Your task to perform on an android device: Open Google Maps and go to "Timeline" Image 0: 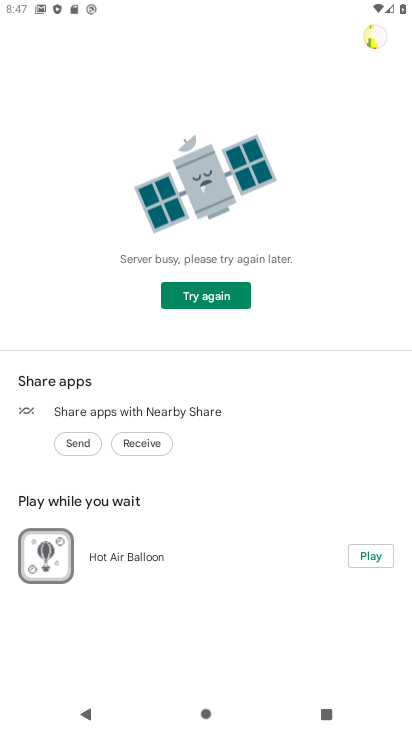
Step 0: press back button
Your task to perform on an android device: Open Google Maps and go to "Timeline" Image 1: 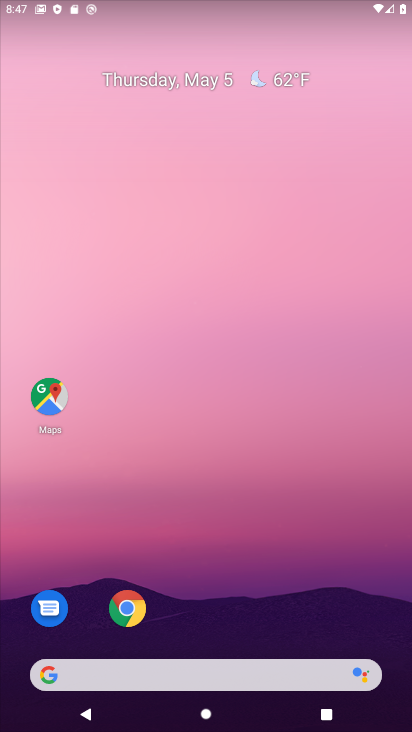
Step 1: drag from (237, 601) to (208, 37)
Your task to perform on an android device: Open Google Maps and go to "Timeline" Image 2: 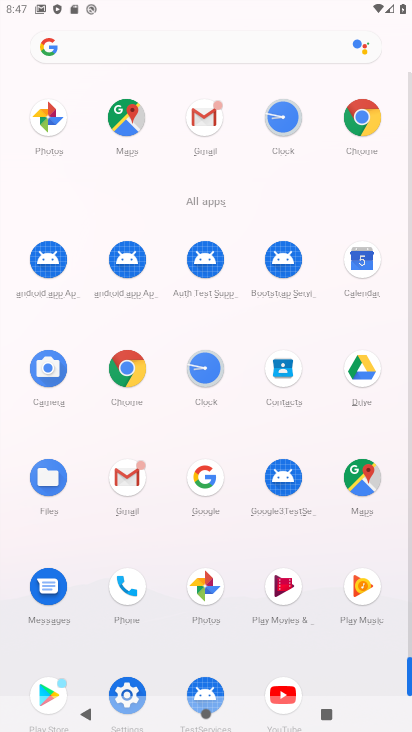
Step 2: drag from (9, 623) to (24, 323)
Your task to perform on an android device: Open Google Maps and go to "Timeline" Image 3: 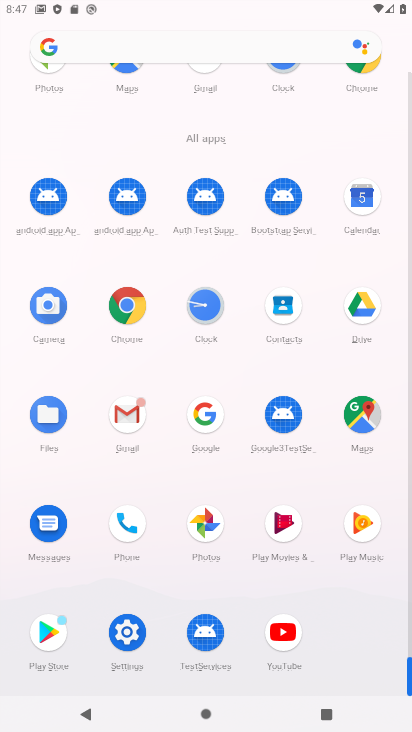
Step 3: click (364, 411)
Your task to perform on an android device: Open Google Maps and go to "Timeline" Image 4: 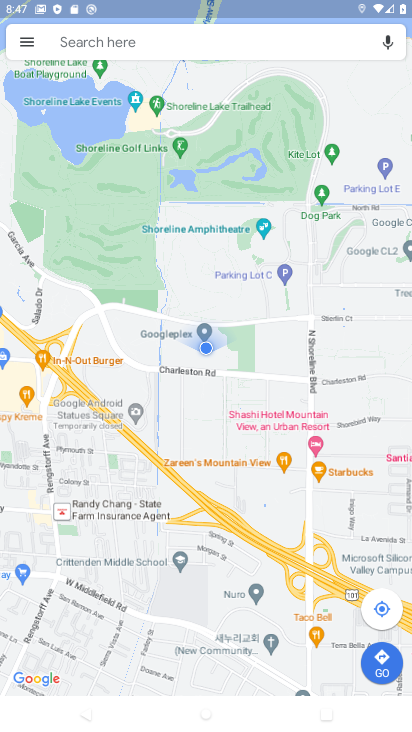
Step 4: click (18, 40)
Your task to perform on an android device: Open Google Maps and go to "Timeline" Image 5: 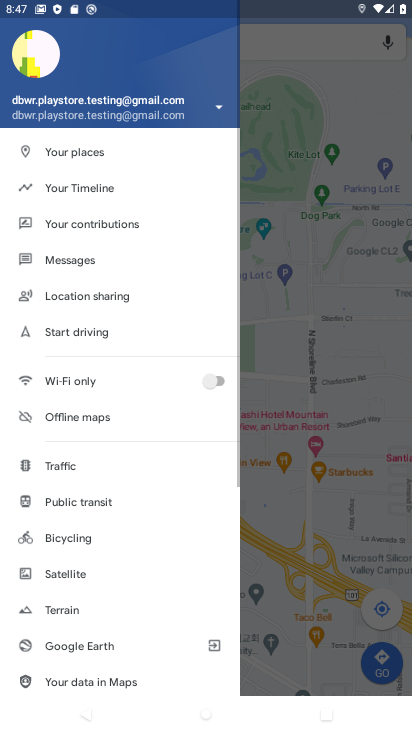
Step 5: click (92, 185)
Your task to perform on an android device: Open Google Maps and go to "Timeline" Image 6: 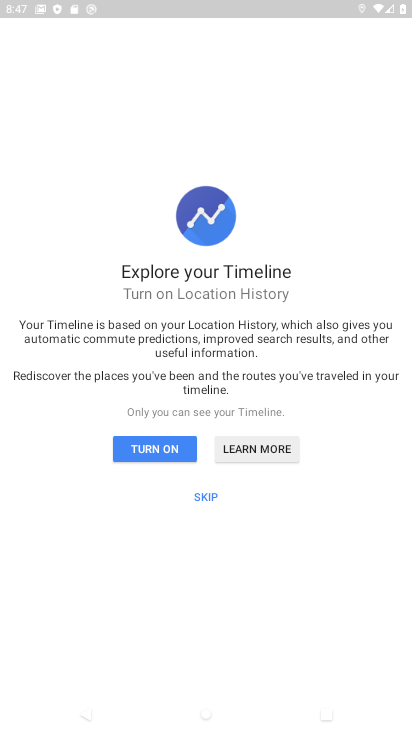
Step 6: click (174, 448)
Your task to perform on an android device: Open Google Maps and go to "Timeline" Image 7: 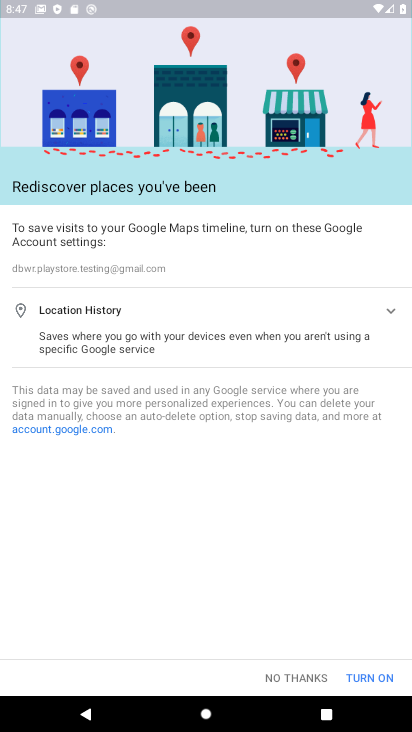
Step 7: click (363, 670)
Your task to perform on an android device: Open Google Maps and go to "Timeline" Image 8: 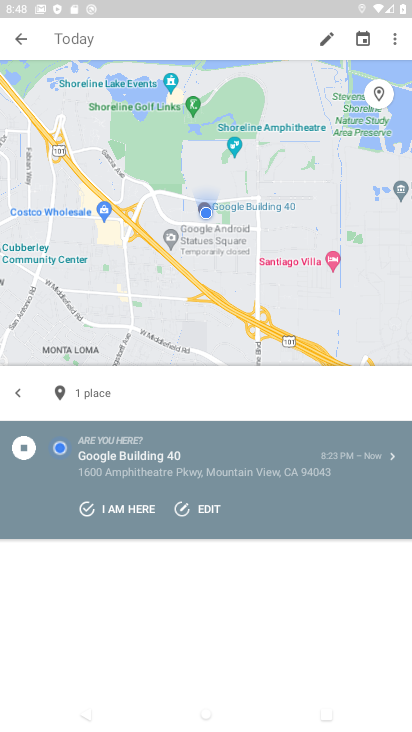
Step 8: task complete